Your task to perform on an android device: Open CNN.com Image 0: 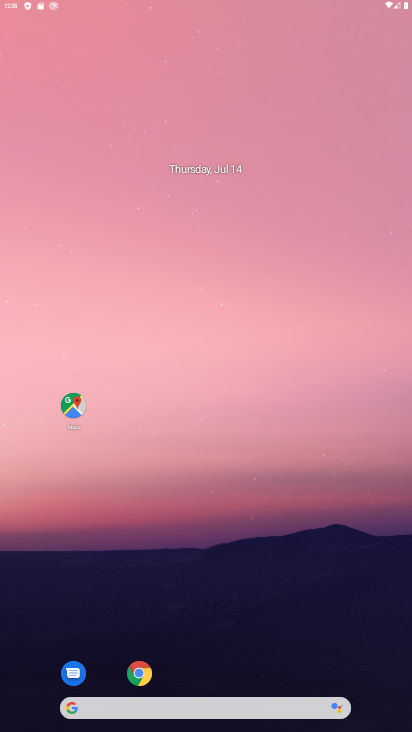
Step 0: click (269, 237)
Your task to perform on an android device: Open CNN.com Image 1: 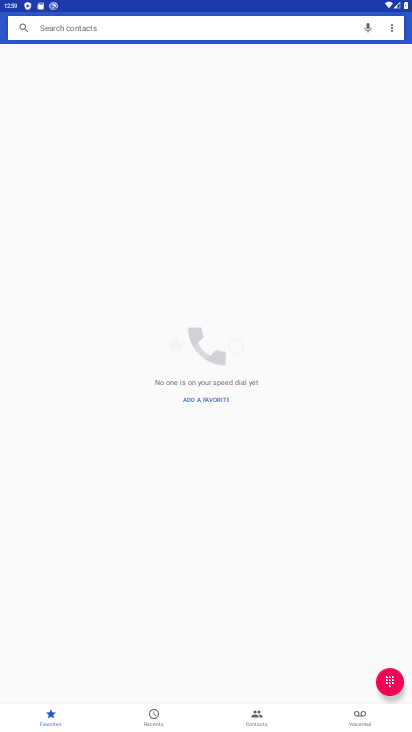
Step 1: press home button
Your task to perform on an android device: Open CNN.com Image 2: 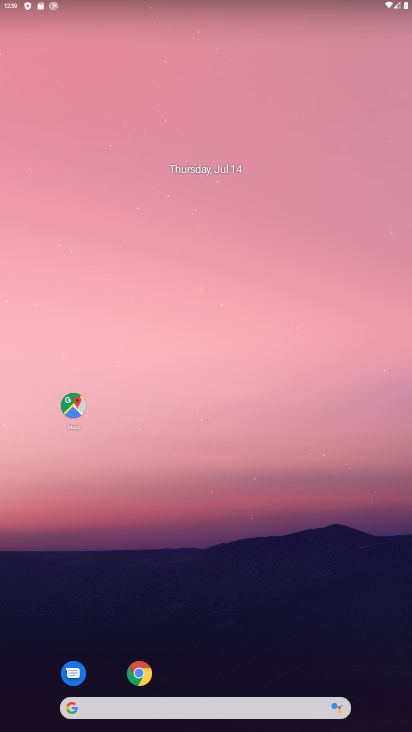
Step 2: drag from (238, 690) to (244, 356)
Your task to perform on an android device: Open CNN.com Image 3: 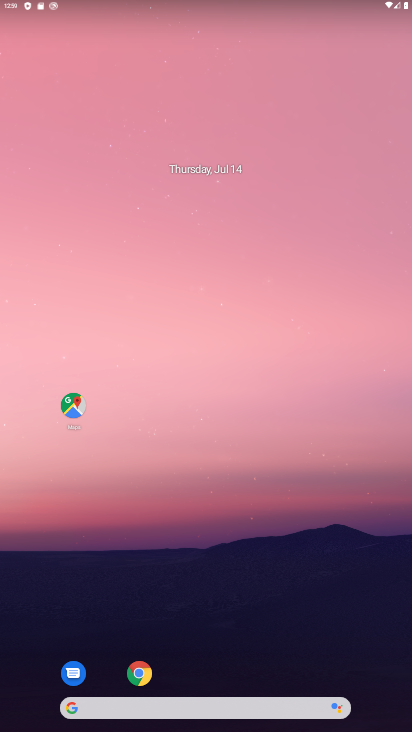
Step 3: drag from (197, 692) to (223, 204)
Your task to perform on an android device: Open CNN.com Image 4: 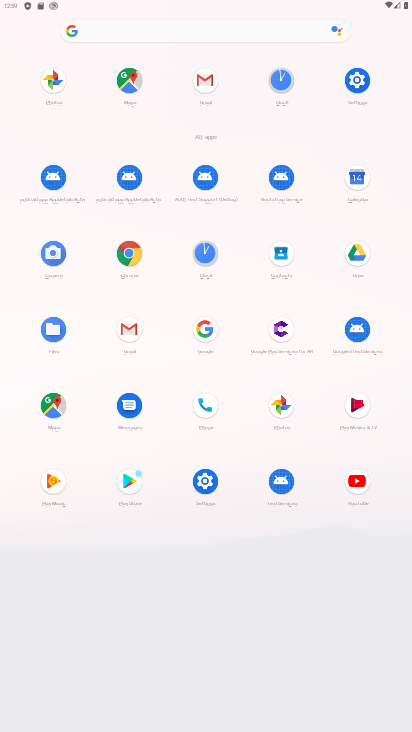
Step 4: click (134, 264)
Your task to perform on an android device: Open CNN.com Image 5: 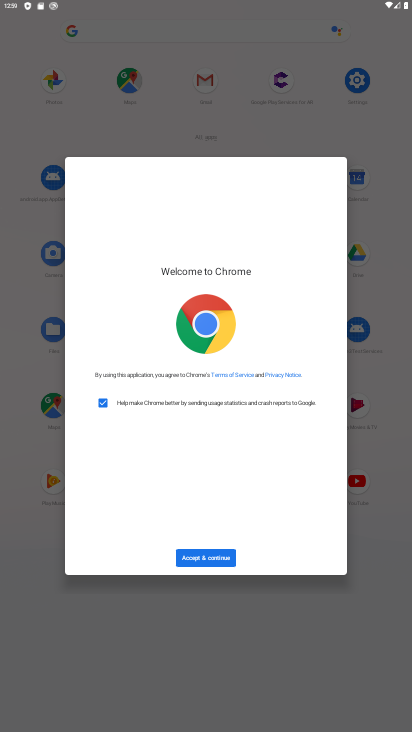
Step 5: click (172, 550)
Your task to perform on an android device: Open CNN.com Image 6: 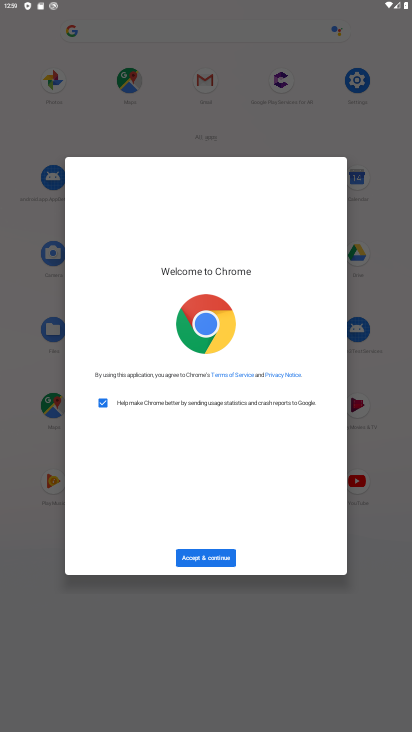
Step 6: click (180, 552)
Your task to perform on an android device: Open CNN.com Image 7: 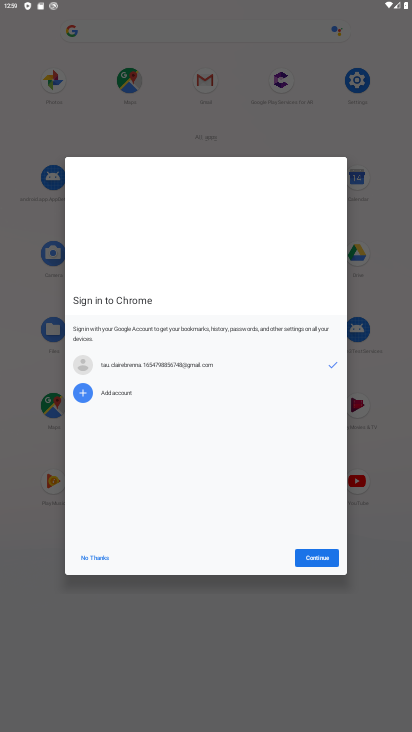
Step 7: click (331, 554)
Your task to perform on an android device: Open CNN.com Image 8: 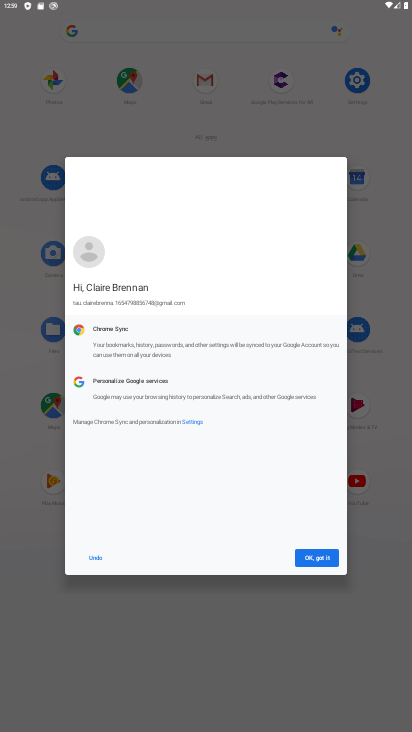
Step 8: click (331, 554)
Your task to perform on an android device: Open CNN.com Image 9: 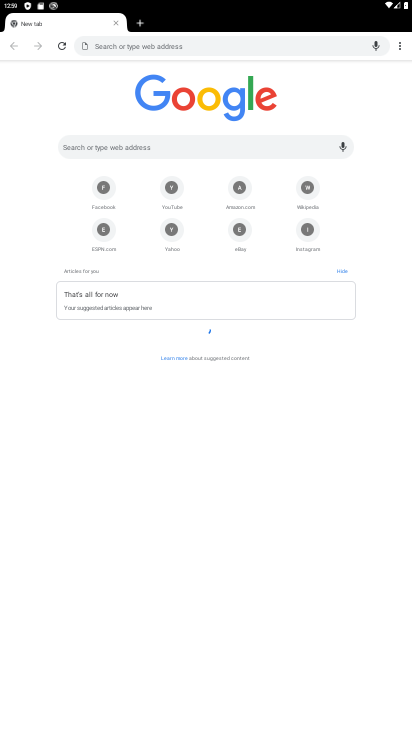
Step 9: click (157, 148)
Your task to perform on an android device: Open CNN.com Image 10: 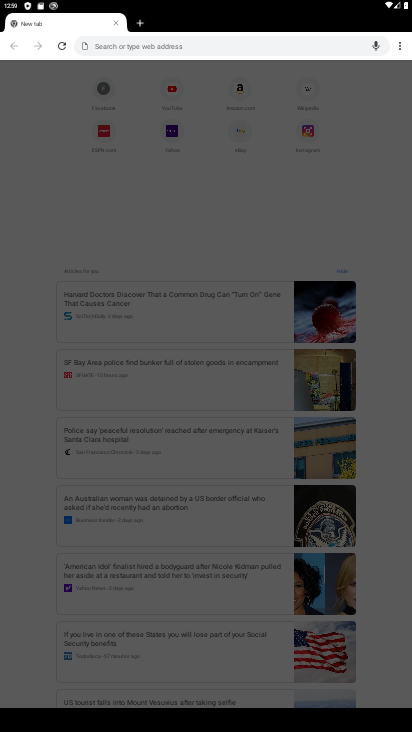
Step 10: type "CNN.com"
Your task to perform on an android device: Open CNN.com Image 11: 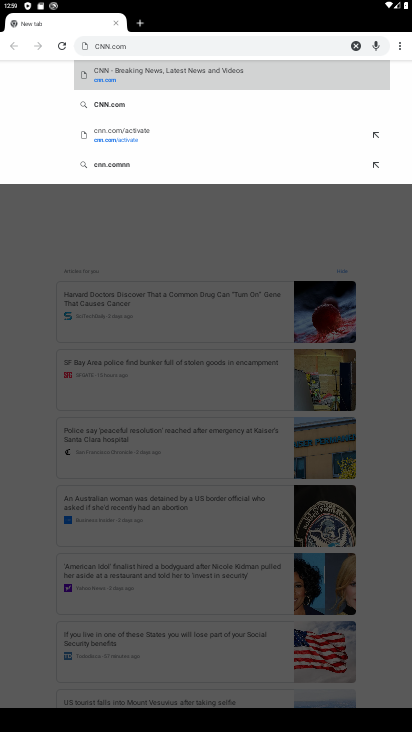
Step 11: click (195, 78)
Your task to perform on an android device: Open CNN.com Image 12: 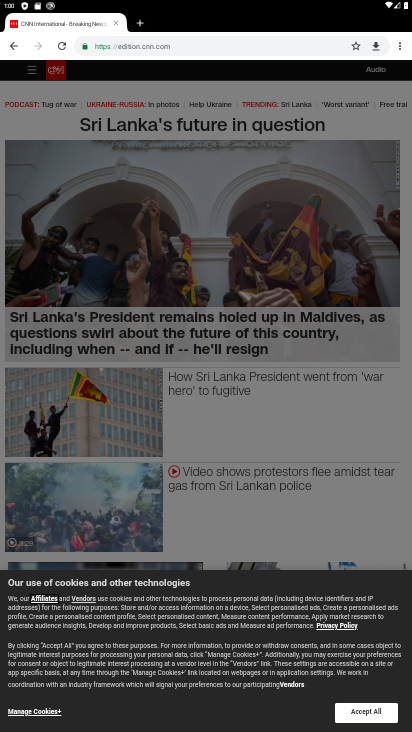
Step 12: click (357, 710)
Your task to perform on an android device: Open CNN.com Image 13: 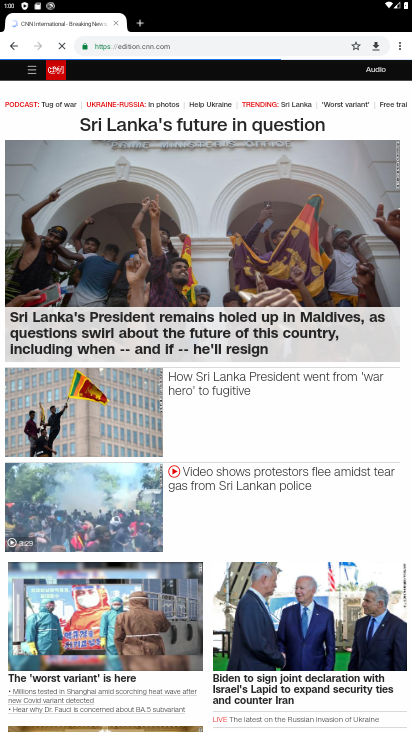
Step 13: task complete